Your task to perform on an android device: Open notification settings Image 0: 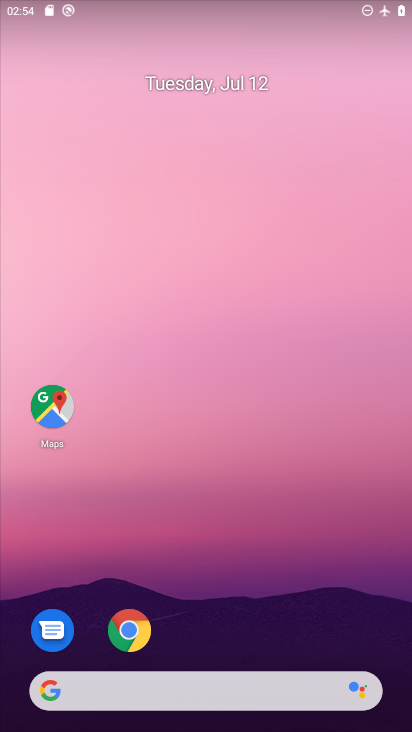
Step 0: drag from (377, 629) to (344, 127)
Your task to perform on an android device: Open notification settings Image 1: 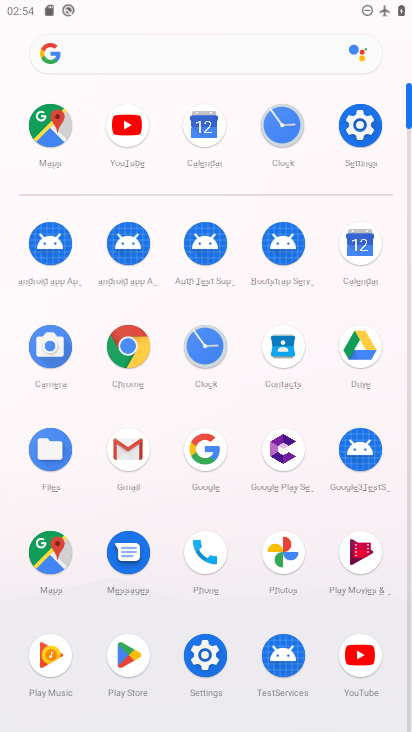
Step 1: click (203, 655)
Your task to perform on an android device: Open notification settings Image 2: 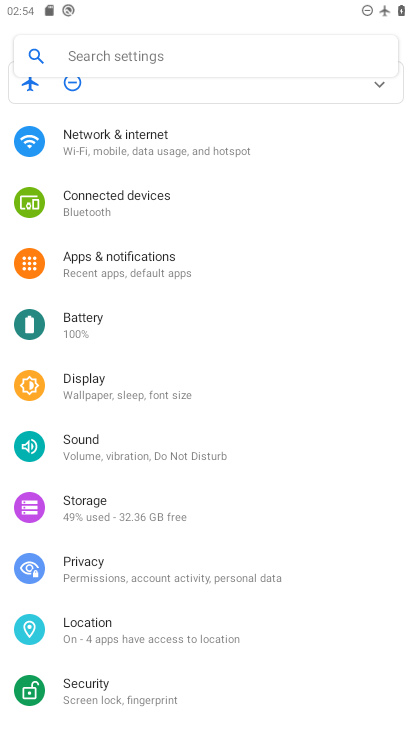
Step 2: click (112, 259)
Your task to perform on an android device: Open notification settings Image 3: 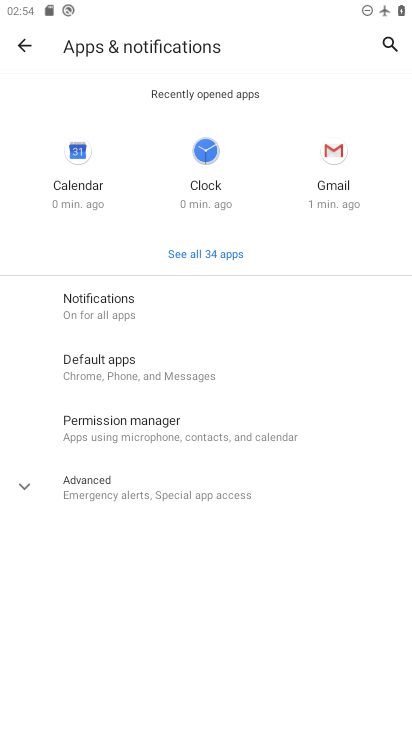
Step 3: click (97, 306)
Your task to perform on an android device: Open notification settings Image 4: 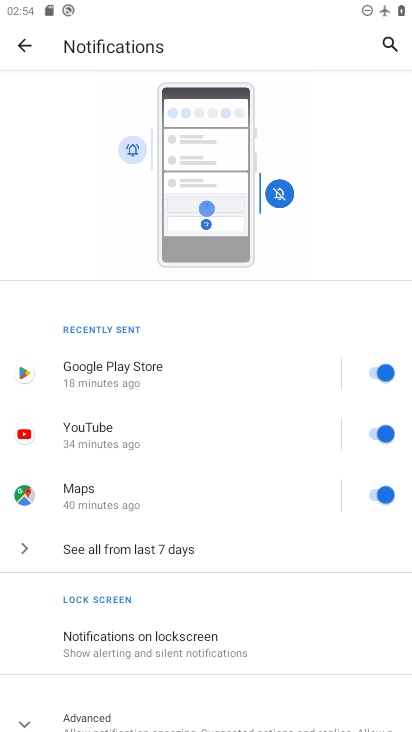
Step 4: task complete